Your task to perform on an android device: refresh tabs in the chrome app Image 0: 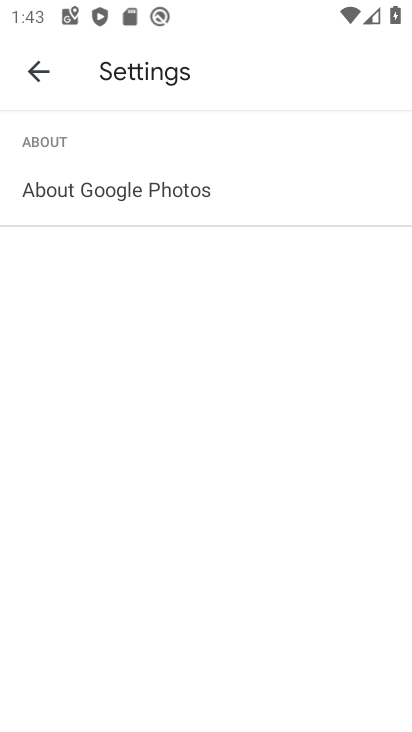
Step 0: press home button
Your task to perform on an android device: refresh tabs in the chrome app Image 1: 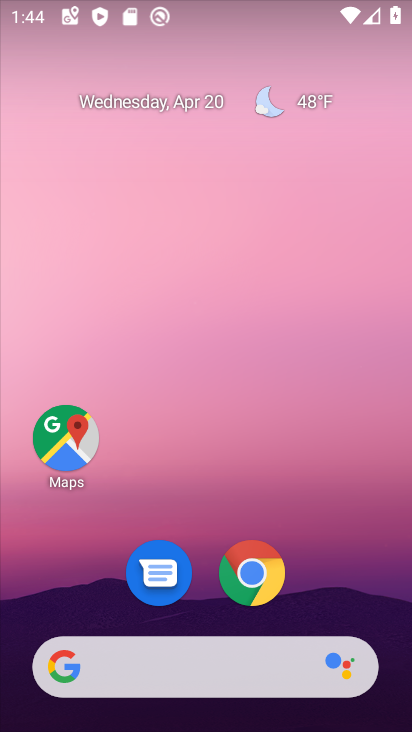
Step 1: drag from (194, 652) to (341, 72)
Your task to perform on an android device: refresh tabs in the chrome app Image 2: 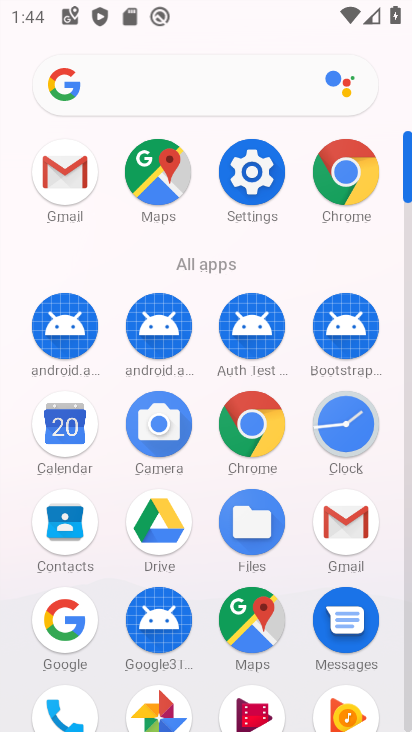
Step 2: click (351, 181)
Your task to perform on an android device: refresh tabs in the chrome app Image 3: 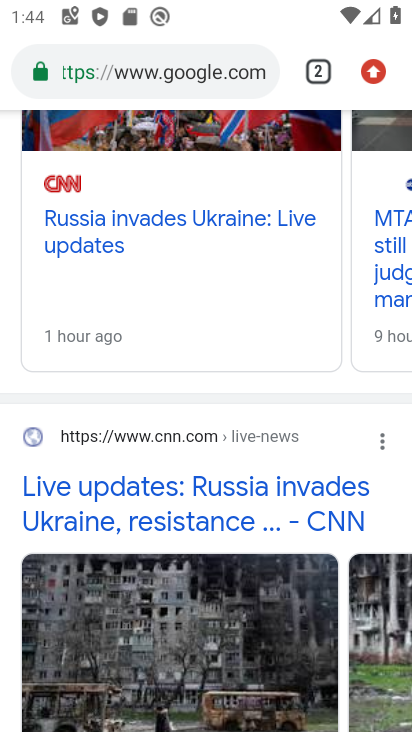
Step 3: click (385, 83)
Your task to perform on an android device: refresh tabs in the chrome app Image 4: 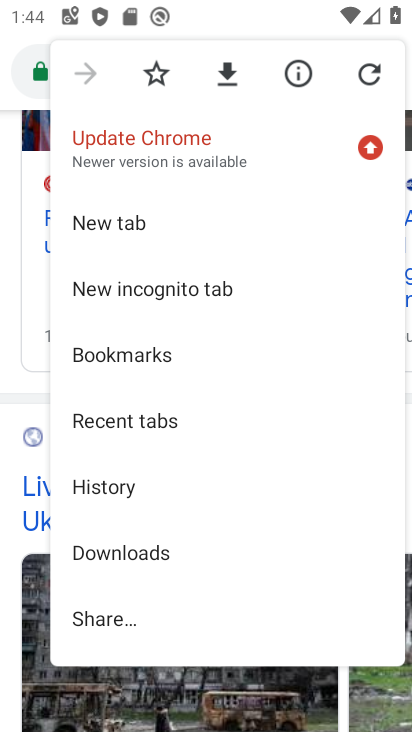
Step 4: click (358, 75)
Your task to perform on an android device: refresh tabs in the chrome app Image 5: 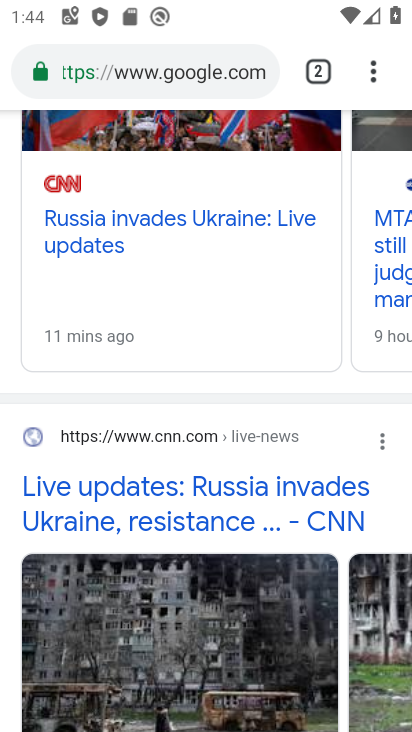
Step 5: task complete